Your task to perform on an android device: Go to notification settings Image 0: 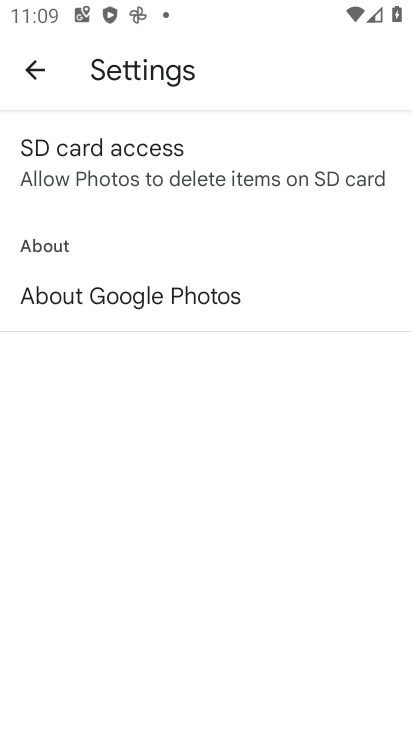
Step 0: press home button
Your task to perform on an android device: Go to notification settings Image 1: 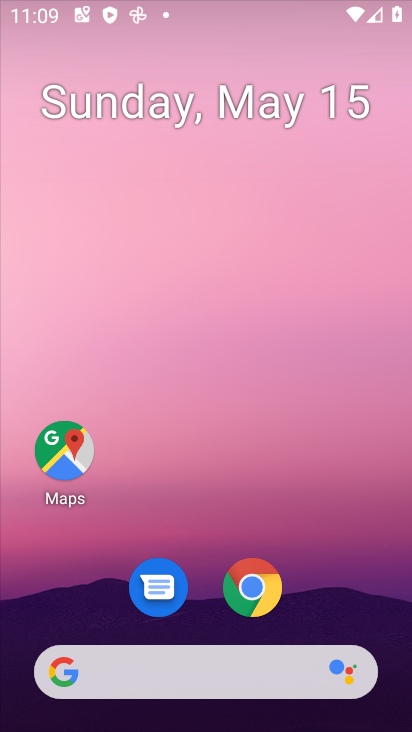
Step 1: drag from (395, 661) to (296, 21)
Your task to perform on an android device: Go to notification settings Image 2: 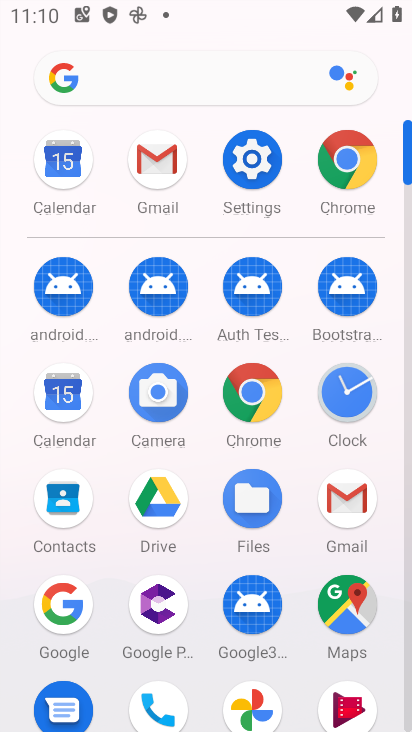
Step 2: click (260, 175)
Your task to perform on an android device: Go to notification settings Image 3: 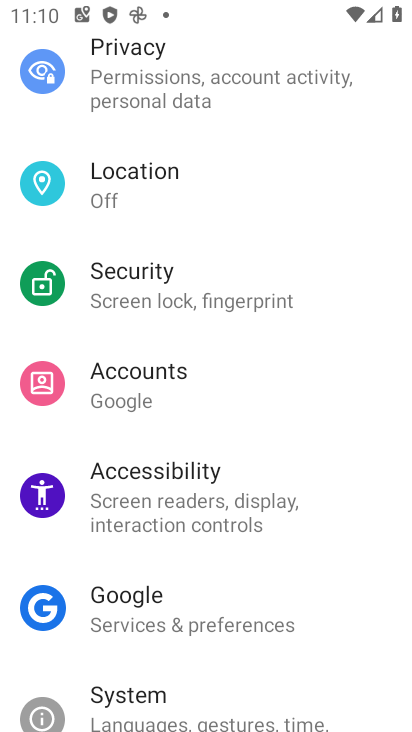
Step 3: drag from (200, 191) to (294, 611)
Your task to perform on an android device: Go to notification settings Image 4: 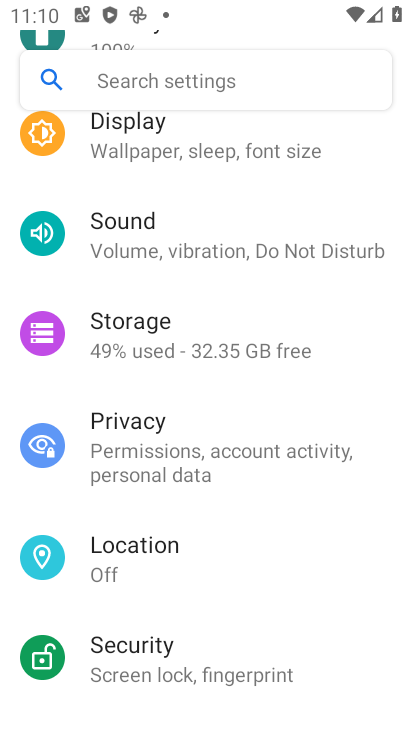
Step 4: drag from (215, 231) to (288, 630)
Your task to perform on an android device: Go to notification settings Image 5: 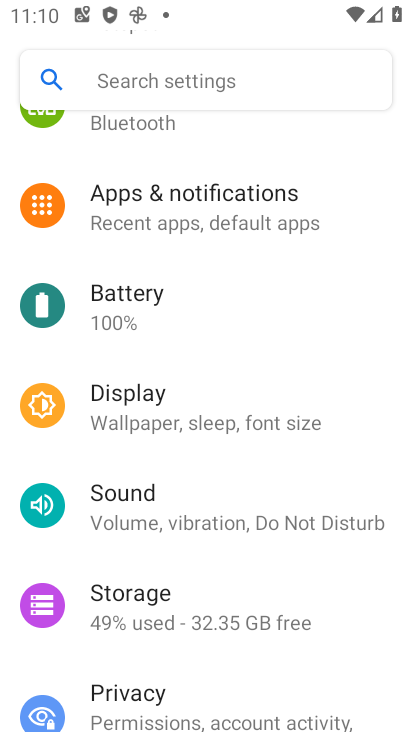
Step 5: drag from (196, 282) to (240, 558)
Your task to perform on an android device: Go to notification settings Image 6: 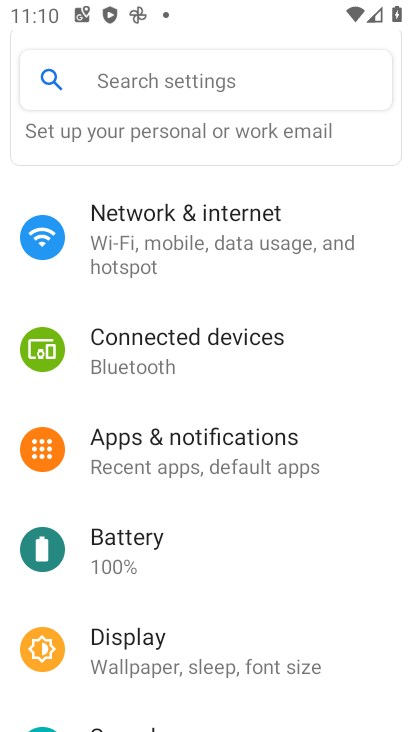
Step 6: click (219, 442)
Your task to perform on an android device: Go to notification settings Image 7: 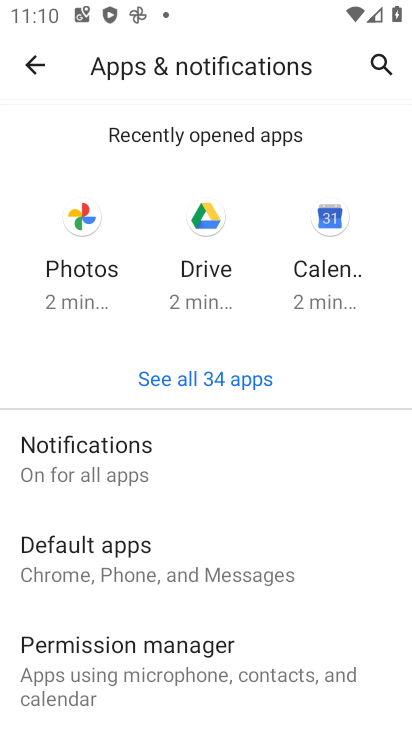
Step 7: click (255, 441)
Your task to perform on an android device: Go to notification settings Image 8: 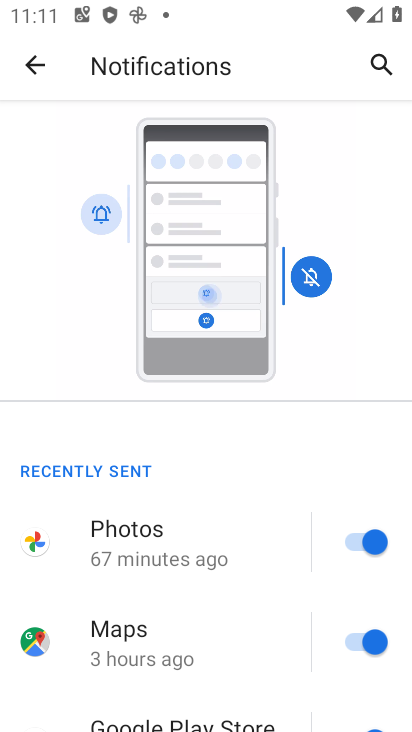
Step 8: task complete